Your task to perform on an android device: allow cookies in the chrome app Image 0: 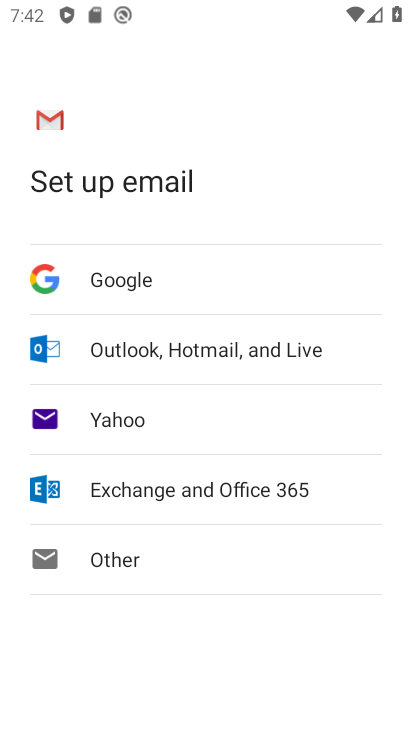
Step 0: press home button
Your task to perform on an android device: allow cookies in the chrome app Image 1: 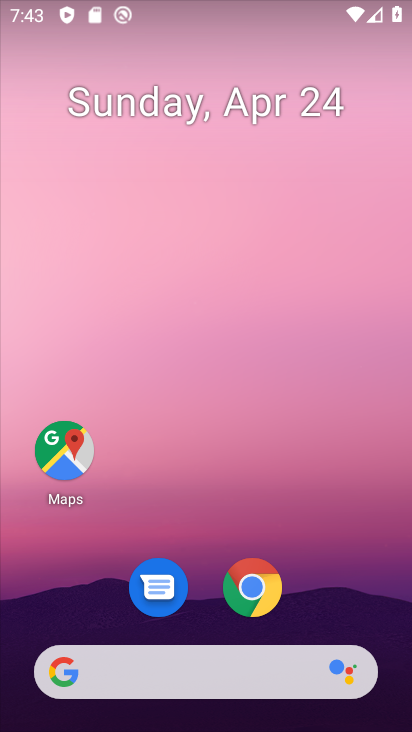
Step 1: drag from (340, 514) to (362, 229)
Your task to perform on an android device: allow cookies in the chrome app Image 2: 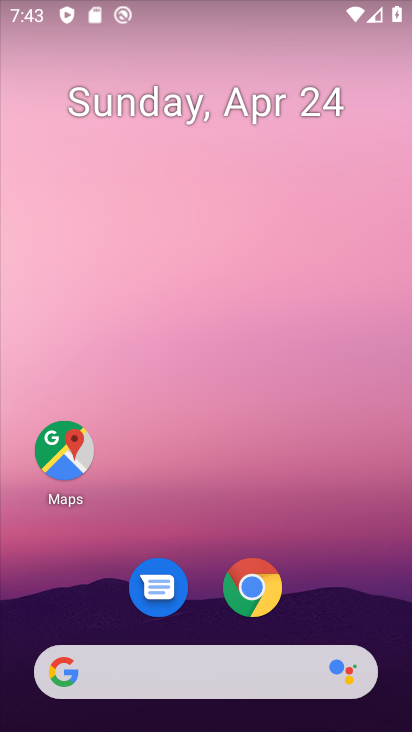
Step 2: drag from (365, 567) to (370, 96)
Your task to perform on an android device: allow cookies in the chrome app Image 3: 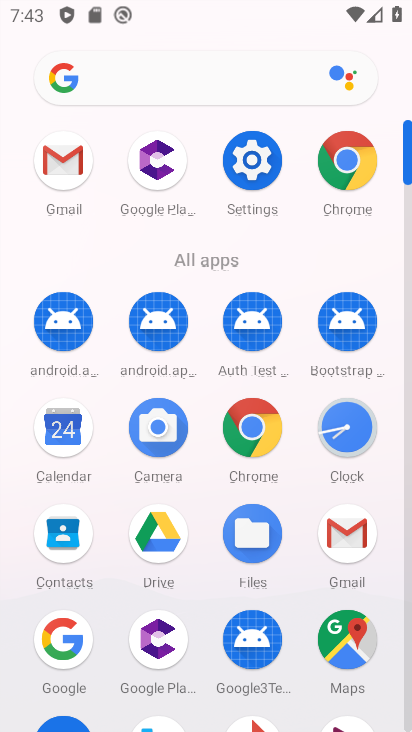
Step 3: click (258, 442)
Your task to perform on an android device: allow cookies in the chrome app Image 4: 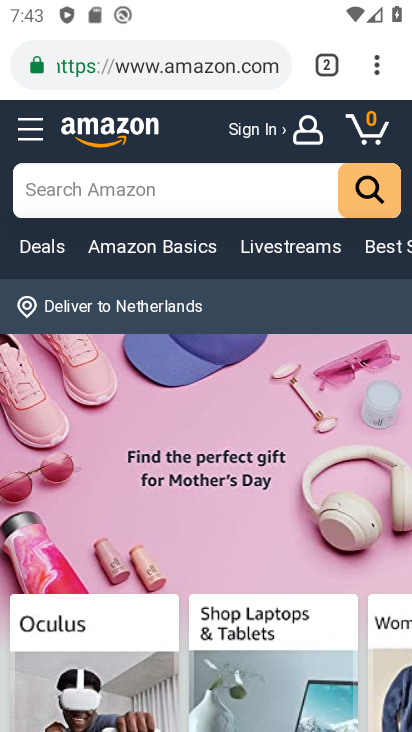
Step 4: drag from (377, 69) to (243, 632)
Your task to perform on an android device: allow cookies in the chrome app Image 5: 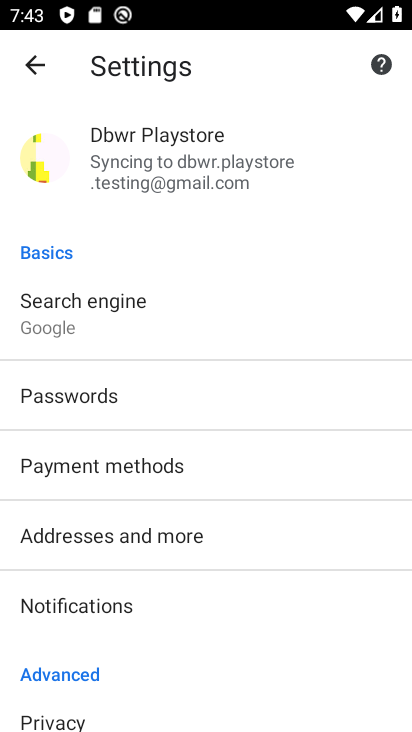
Step 5: drag from (285, 666) to (304, 338)
Your task to perform on an android device: allow cookies in the chrome app Image 6: 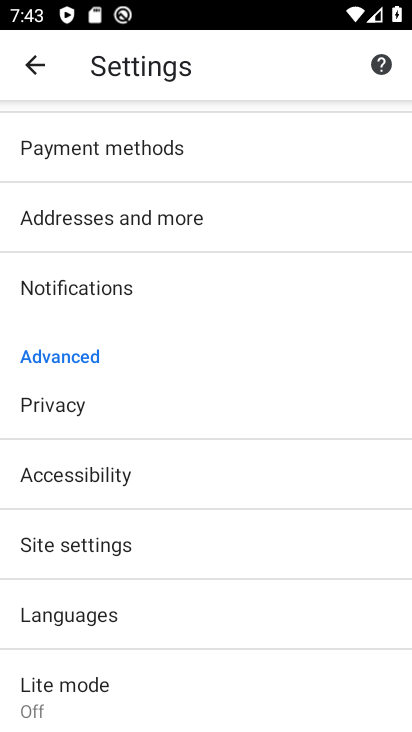
Step 6: drag from (200, 641) to (251, 333)
Your task to perform on an android device: allow cookies in the chrome app Image 7: 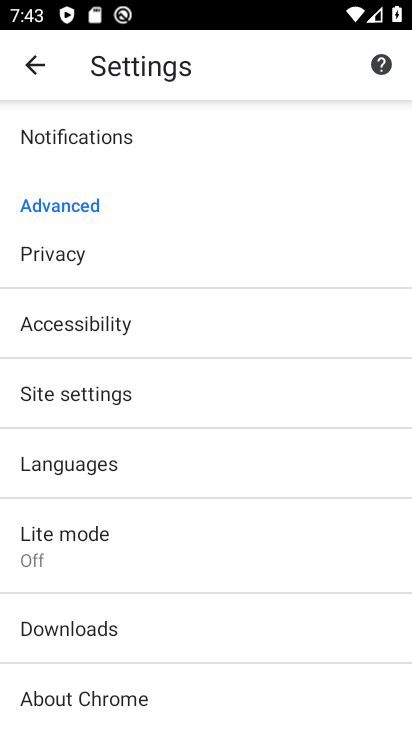
Step 7: click (144, 384)
Your task to perform on an android device: allow cookies in the chrome app Image 8: 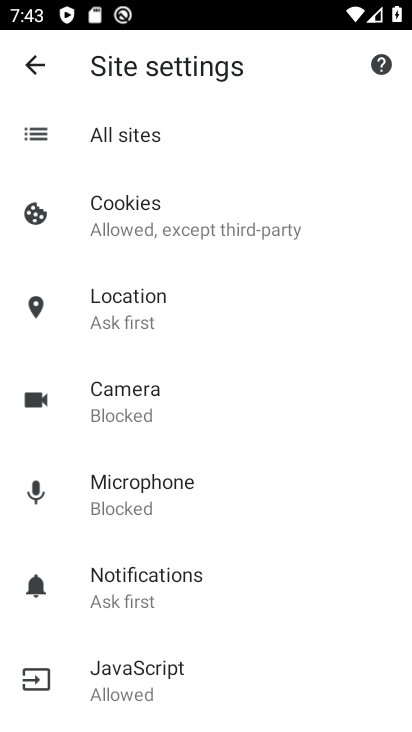
Step 8: click (131, 199)
Your task to perform on an android device: allow cookies in the chrome app Image 9: 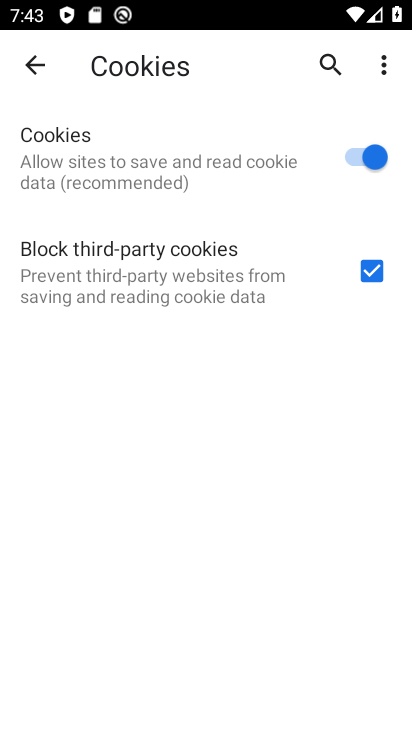
Step 9: task complete